Your task to perform on an android device: Go to CNN.com Image 0: 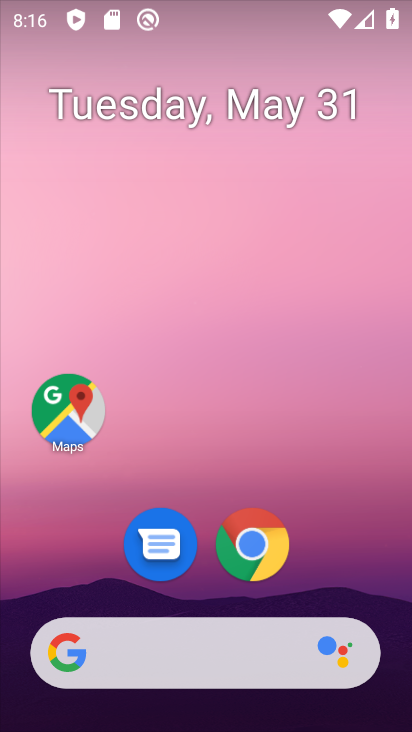
Step 0: click (247, 535)
Your task to perform on an android device: Go to CNN.com Image 1: 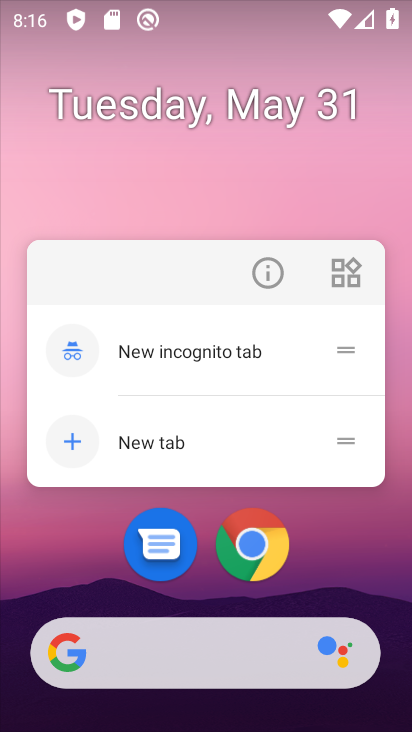
Step 1: click (245, 534)
Your task to perform on an android device: Go to CNN.com Image 2: 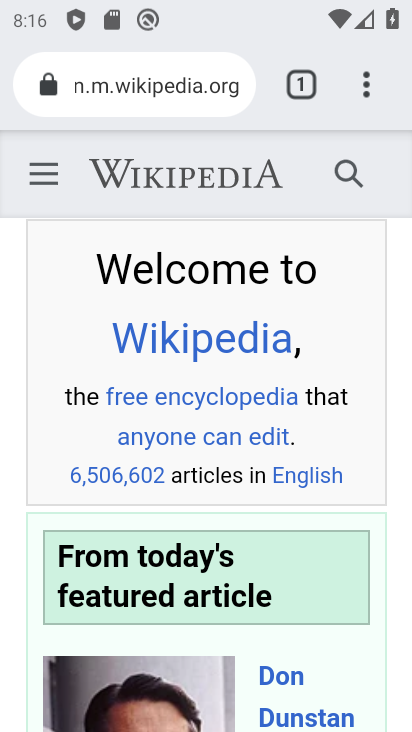
Step 2: click (164, 89)
Your task to perform on an android device: Go to CNN.com Image 3: 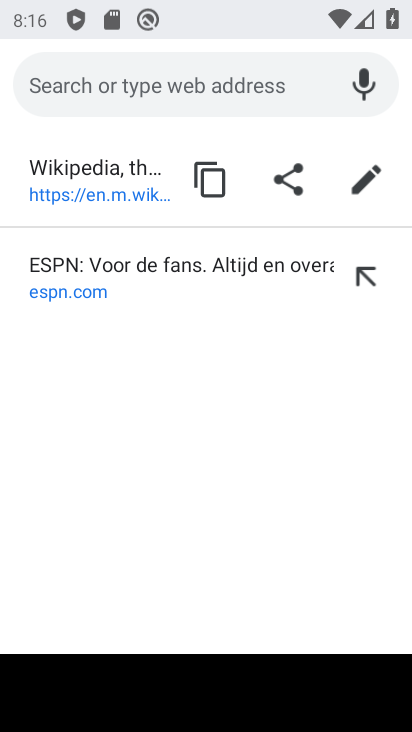
Step 3: type "cnn.com"
Your task to perform on an android device: Go to CNN.com Image 4: 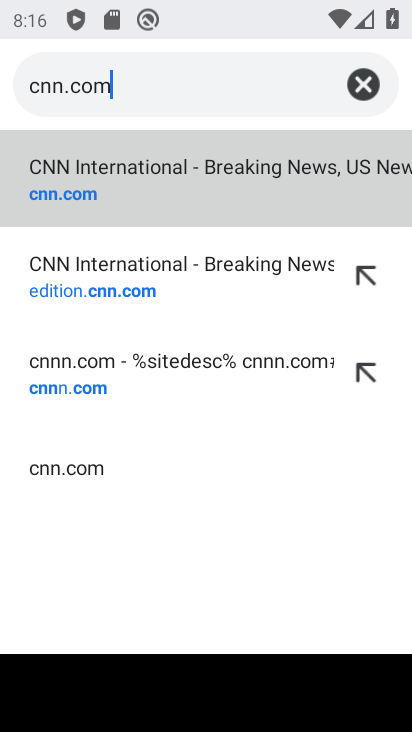
Step 4: click (104, 207)
Your task to perform on an android device: Go to CNN.com Image 5: 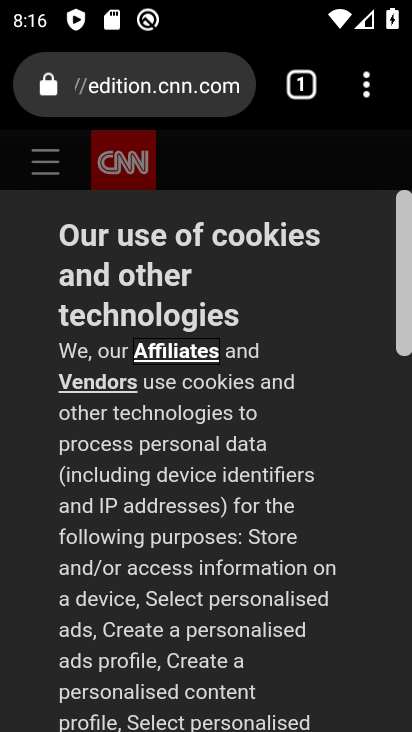
Step 5: task complete